Your task to perform on an android device: uninstall "Roku - Official Remote Control" Image 0: 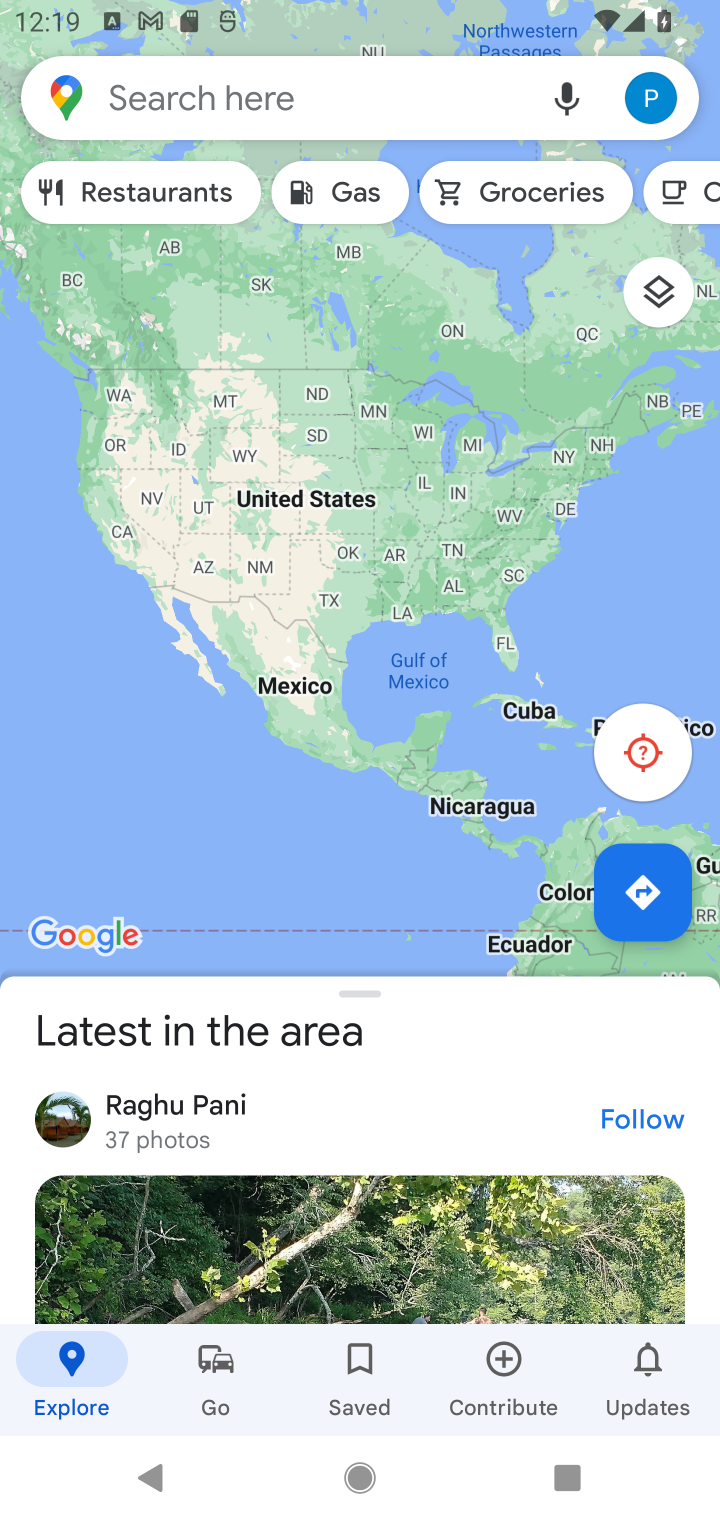
Step 0: press back button
Your task to perform on an android device: uninstall "Roku - Official Remote Control" Image 1: 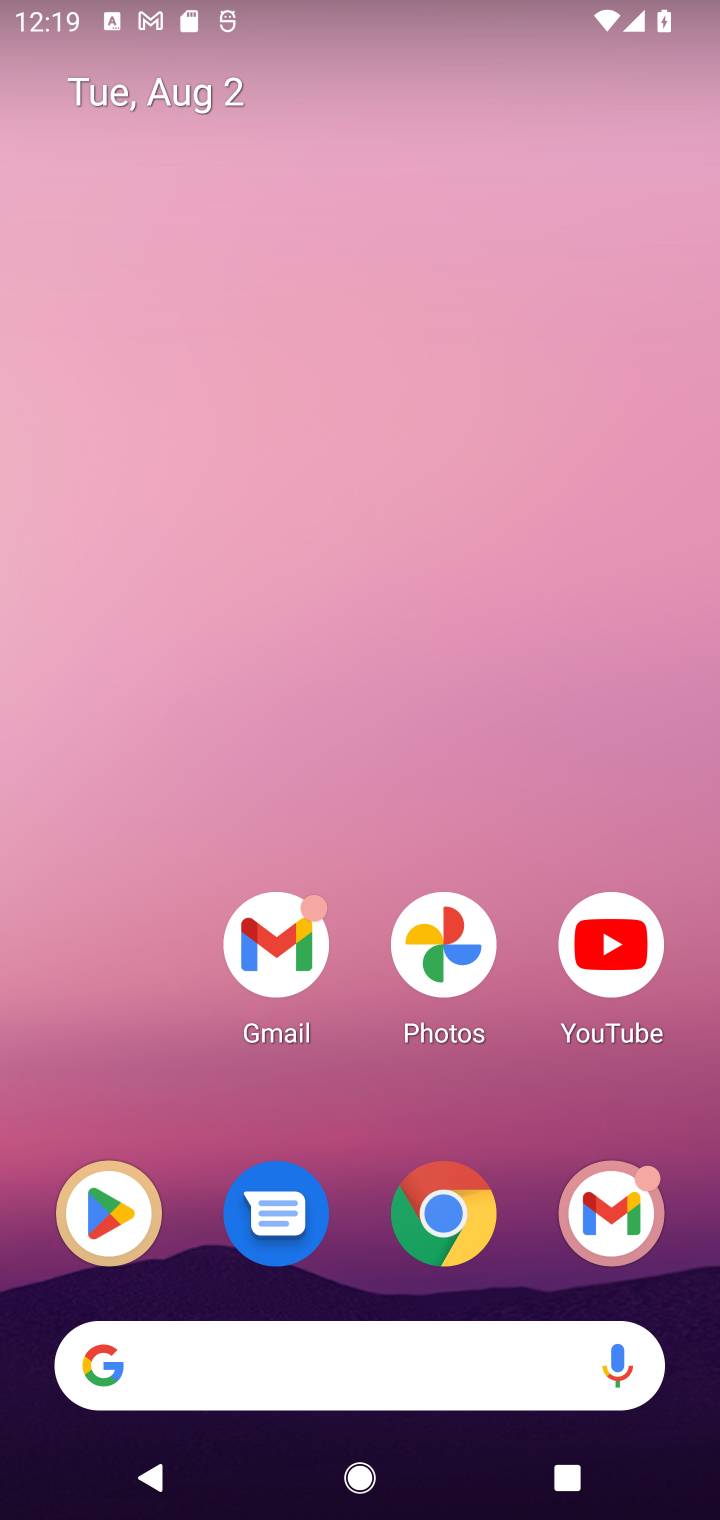
Step 1: click (67, 1258)
Your task to perform on an android device: uninstall "Roku - Official Remote Control" Image 2: 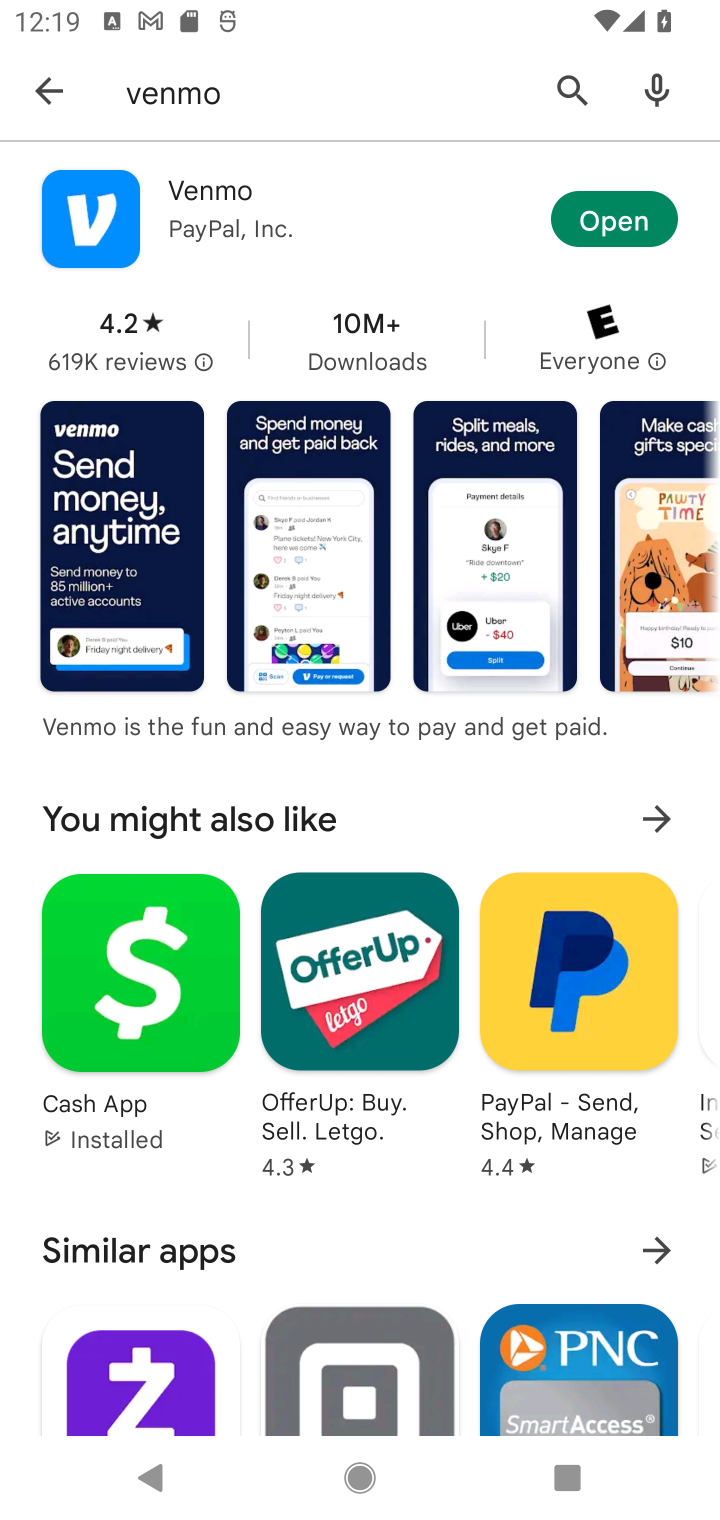
Step 2: click (59, 79)
Your task to perform on an android device: uninstall "Roku - Official Remote Control" Image 3: 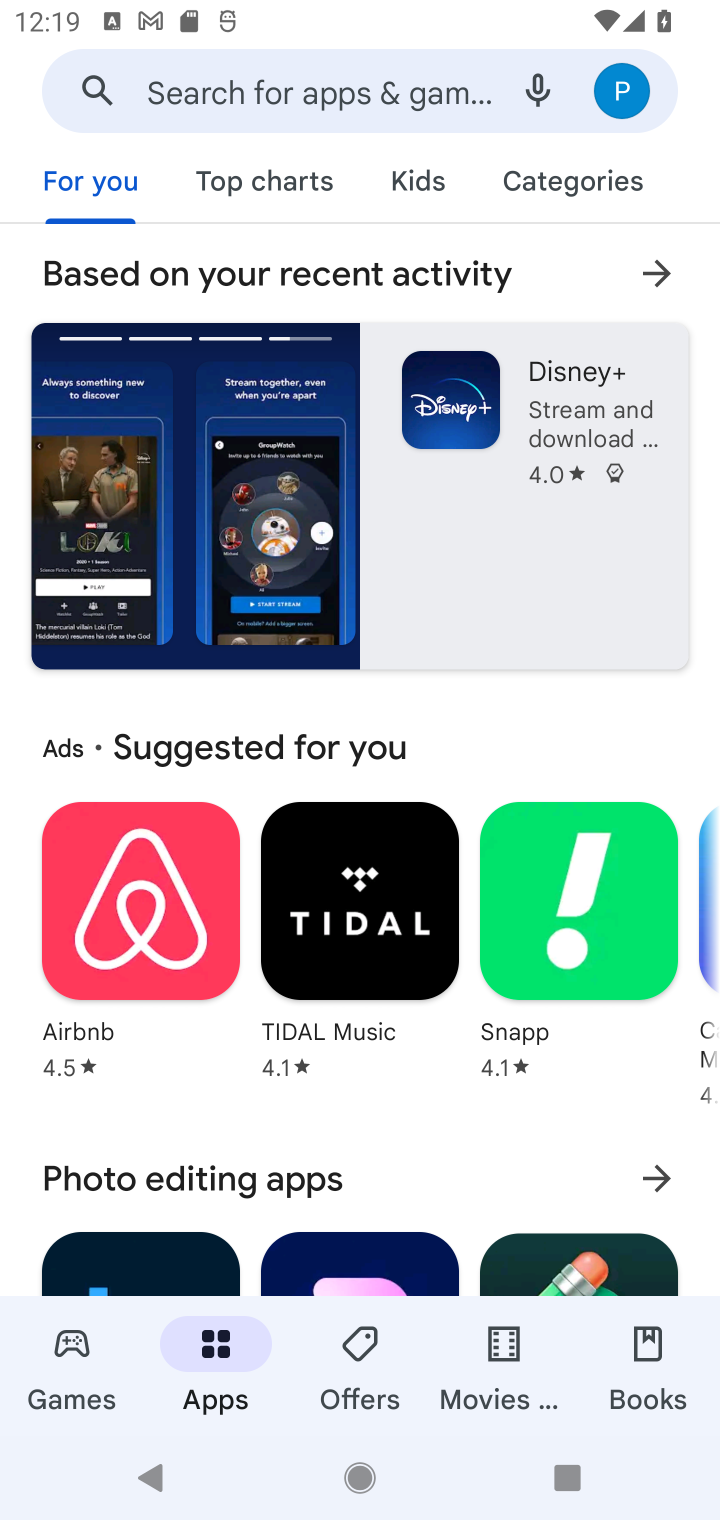
Step 3: click (253, 108)
Your task to perform on an android device: uninstall "Roku - Official Remote Control" Image 4: 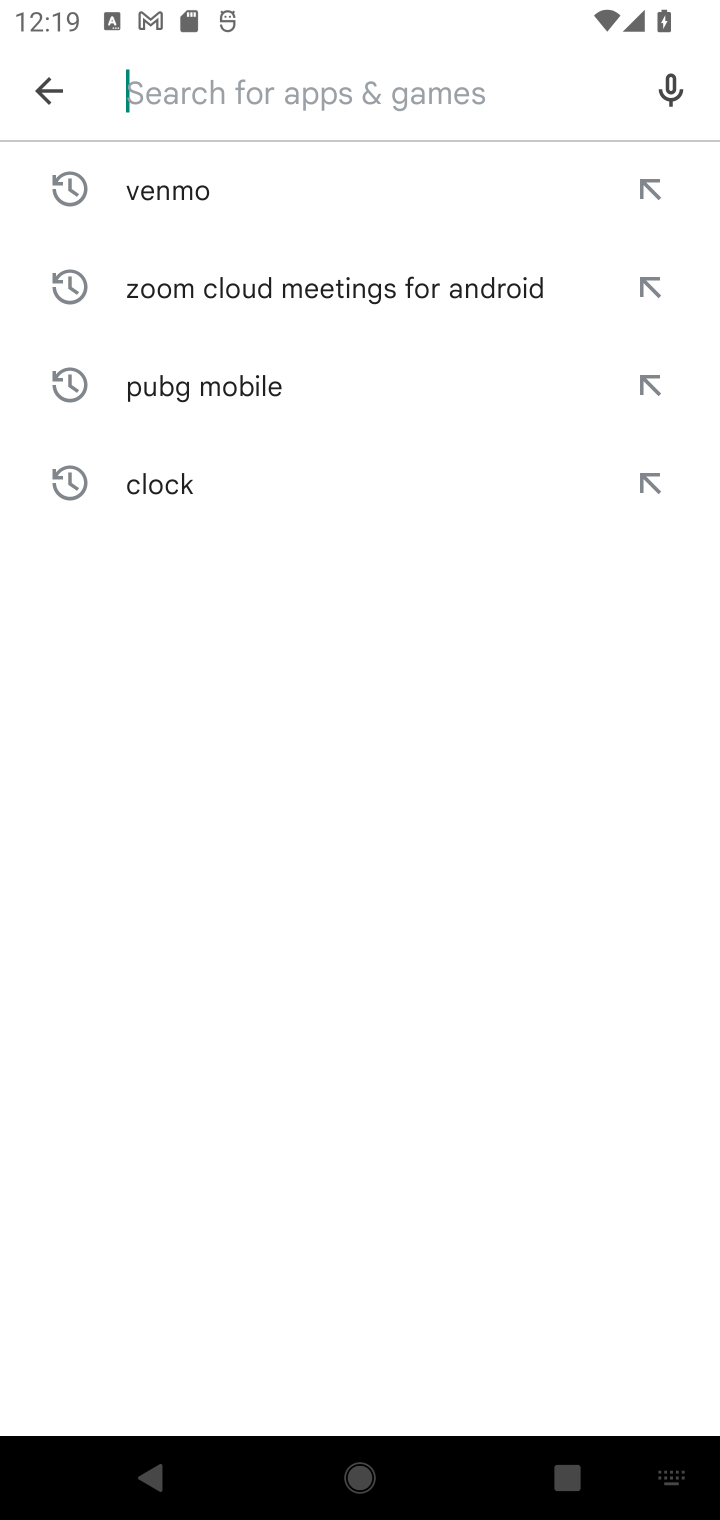
Step 4: type "Roku - Official Remote Control"
Your task to perform on an android device: uninstall "Roku - Official Remote Control" Image 5: 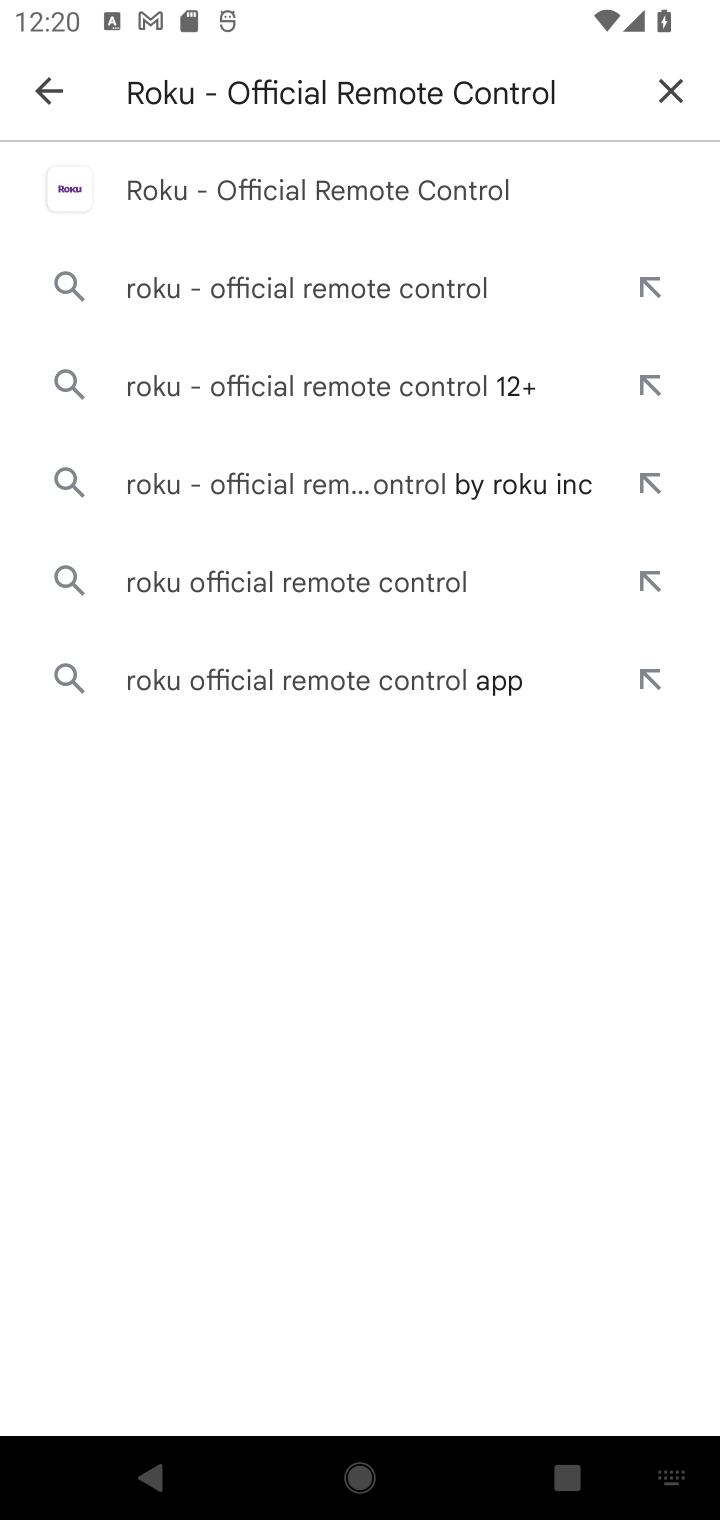
Step 5: click (252, 196)
Your task to perform on an android device: uninstall "Roku - Official Remote Control" Image 6: 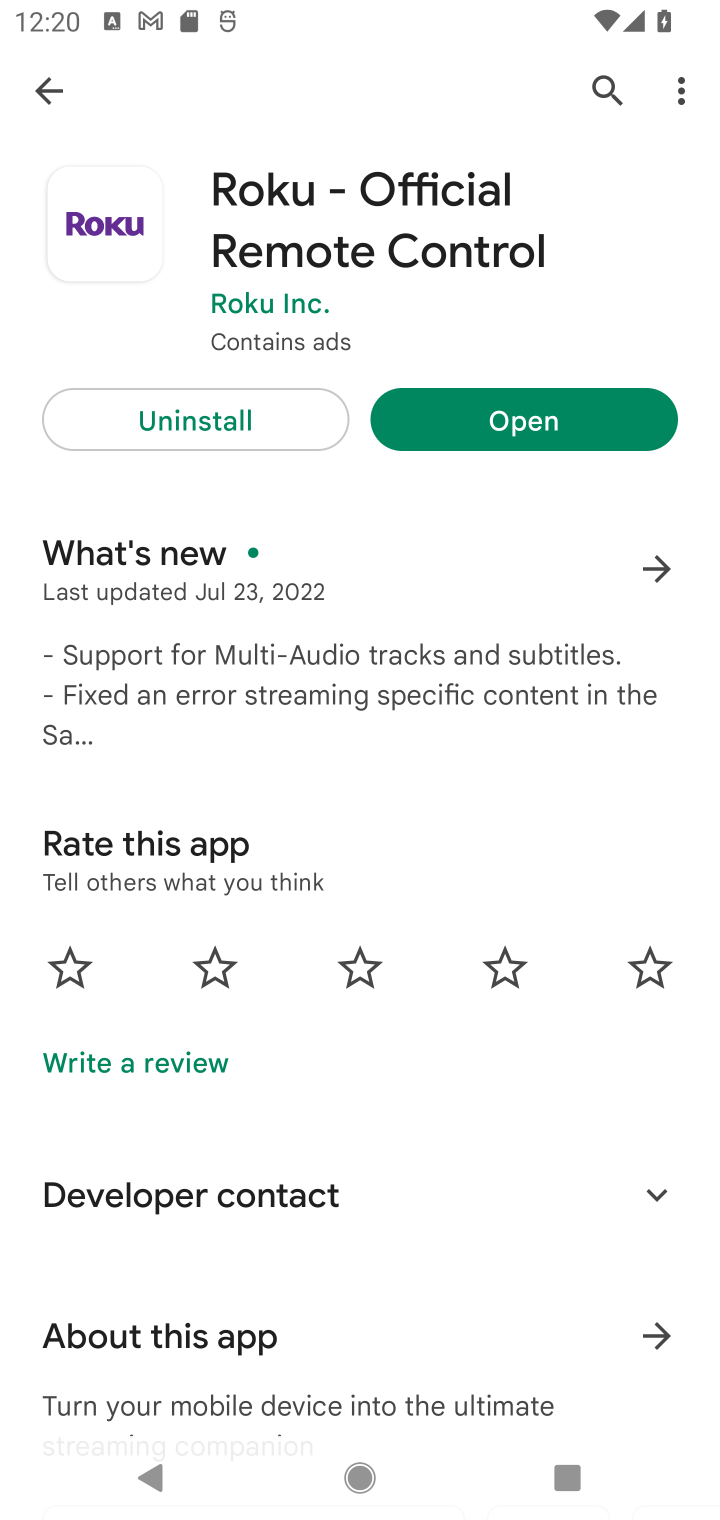
Step 6: click (221, 435)
Your task to perform on an android device: uninstall "Roku - Official Remote Control" Image 7: 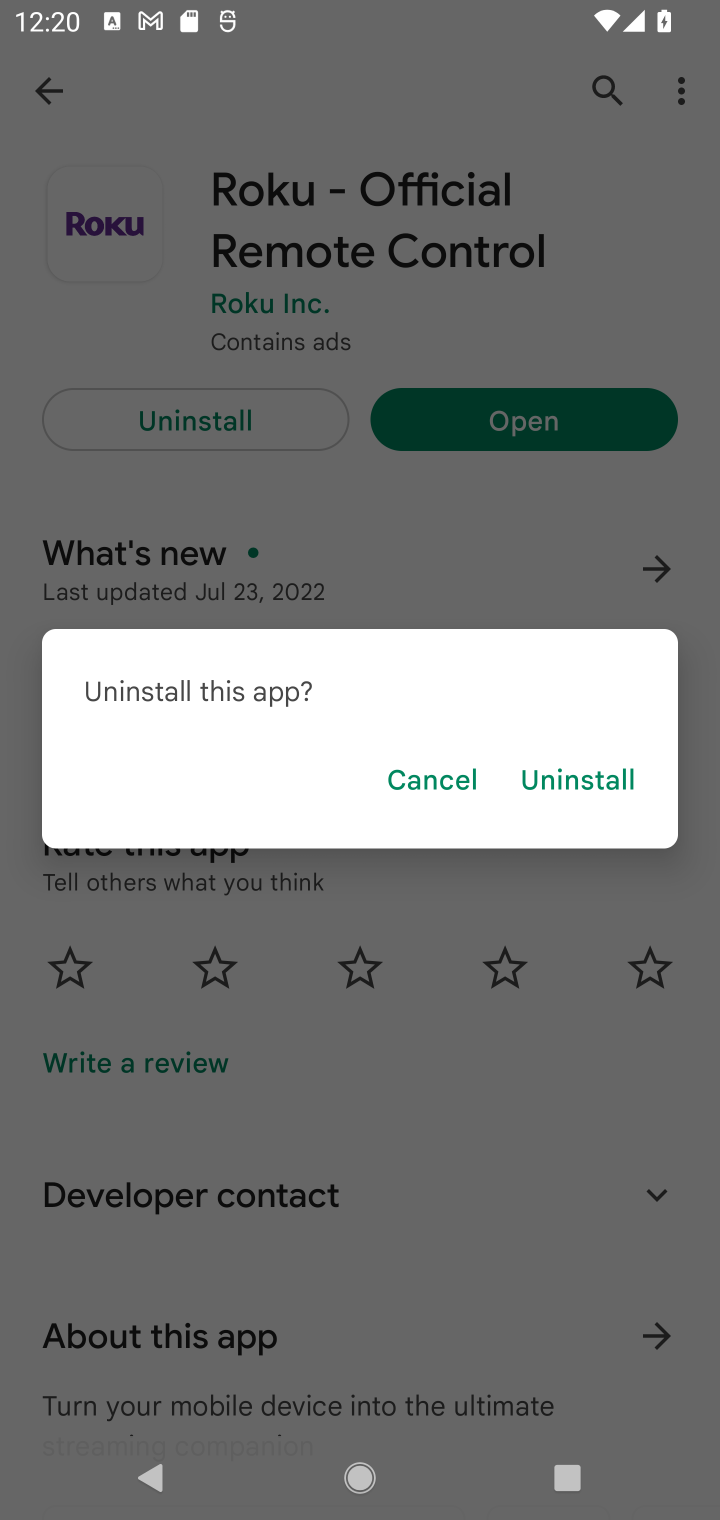
Step 7: click (587, 783)
Your task to perform on an android device: uninstall "Roku - Official Remote Control" Image 8: 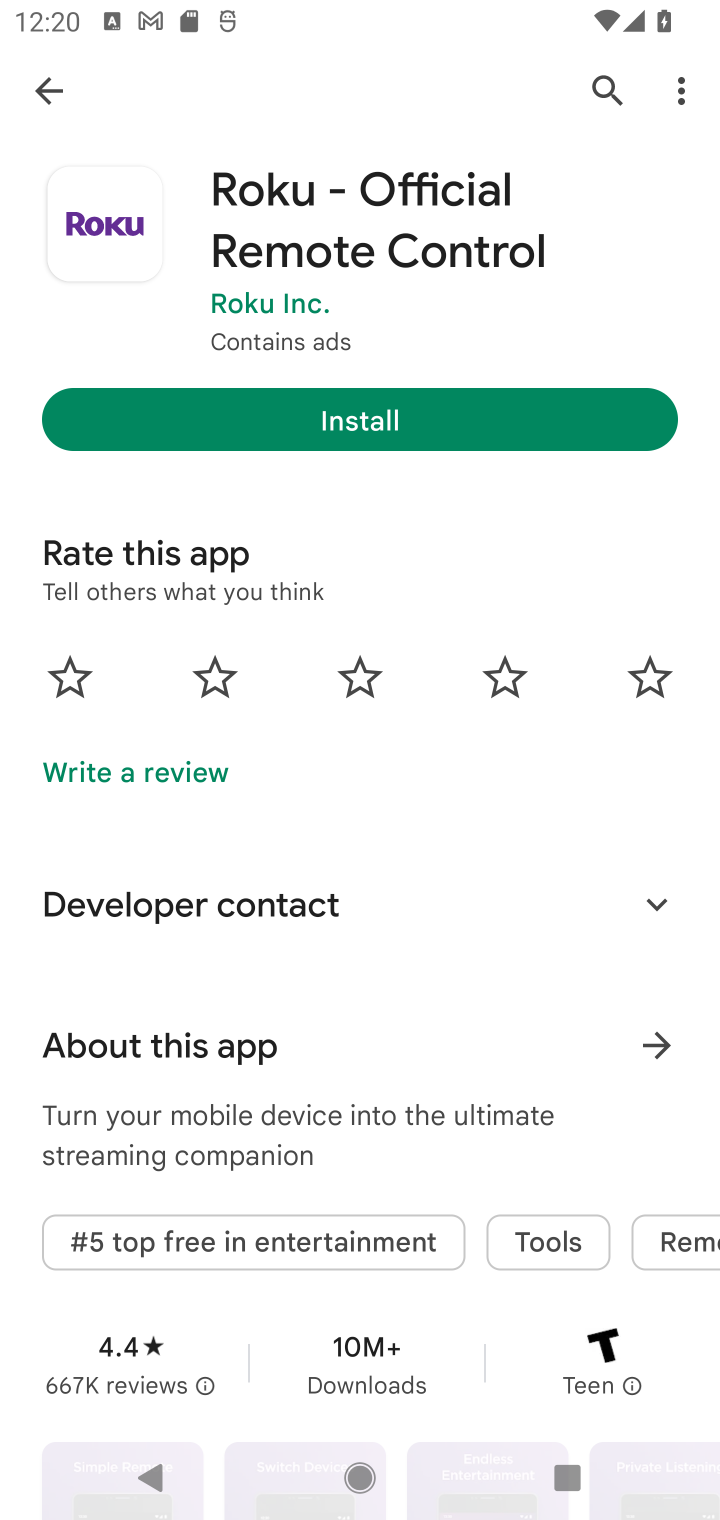
Step 8: task complete